Your task to perform on an android device: snooze an email in the gmail app Image 0: 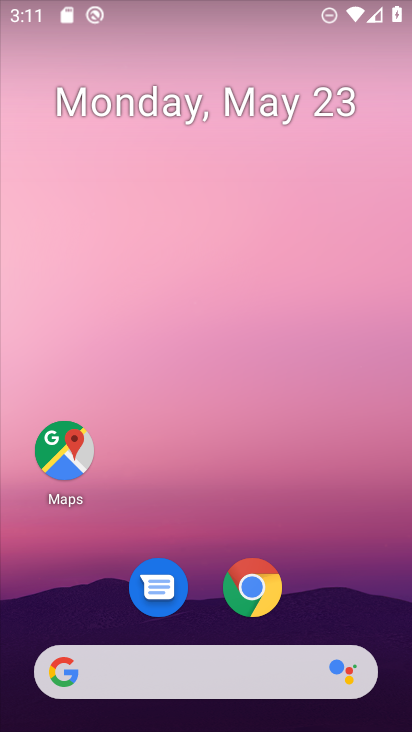
Step 0: drag from (208, 594) to (264, 121)
Your task to perform on an android device: snooze an email in the gmail app Image 1: 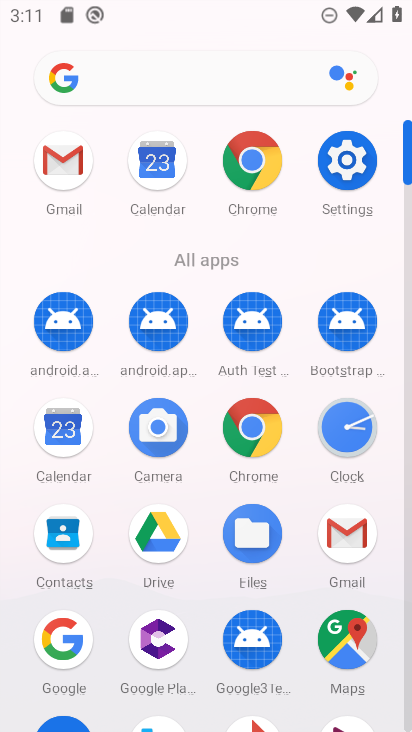
Step 1: click (346, 543)
Your task to perform on an android device: snooze an email in the gmail app Image 2: 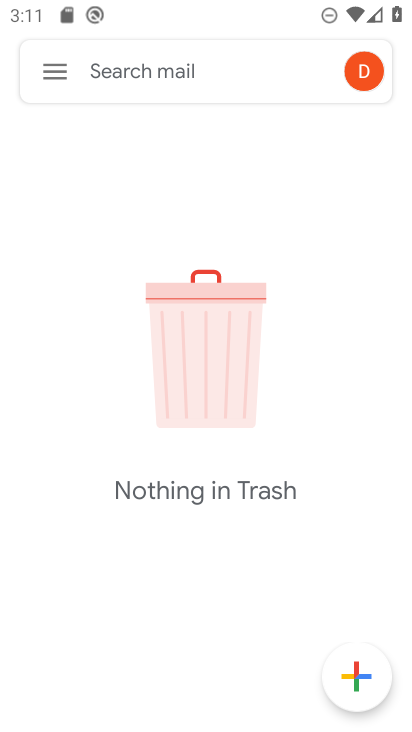
Step 2: click (55, 74)
Your task to perform on an android device: snooze an email in the gmail app Image 3: 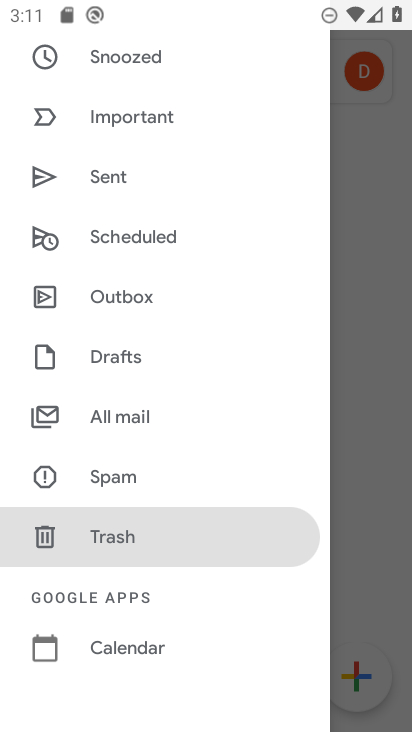
Step 3: click (148, 421)
Your task to perform on an android device: snooze an email in the gmail app Image 4: 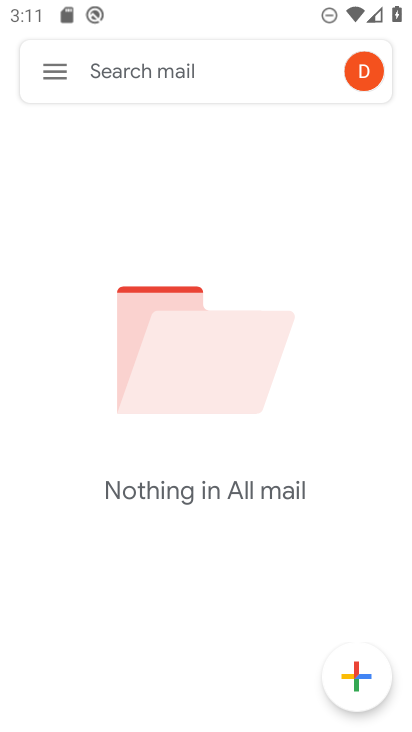
Step 4: task complete